Your task to perform on an android device: create a new album in the google photos Image 0: 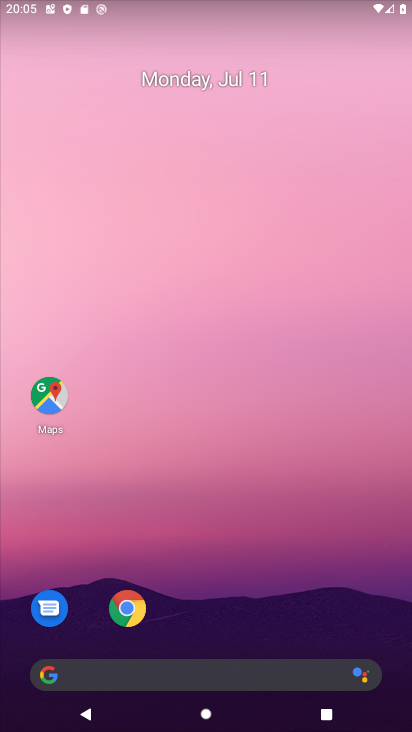
Step 0: click (232, 595)
Your task to perform on an android device: create a new album in the google photos Image 1: 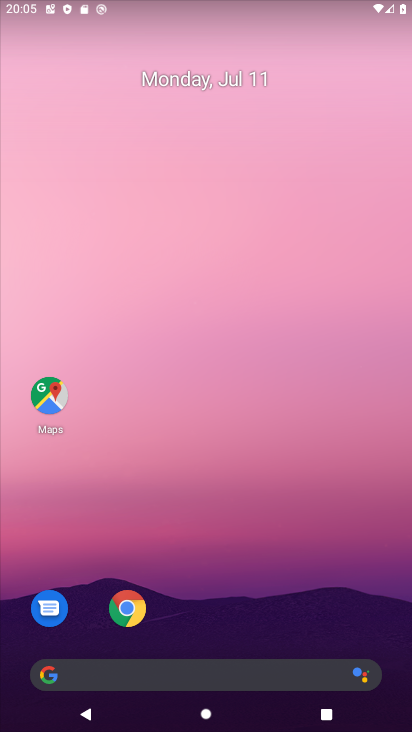
Step 1: drag from (232, 595) to (178, 169)
Your task to perform on an android device: create a new album in the google photos Image 2: 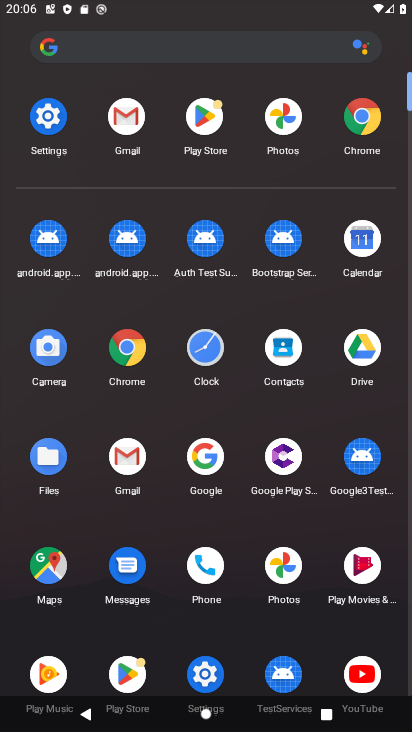
Step 2: click (272, 128)
Your task to perform on an android device: create a new album in the google photos Image 3: 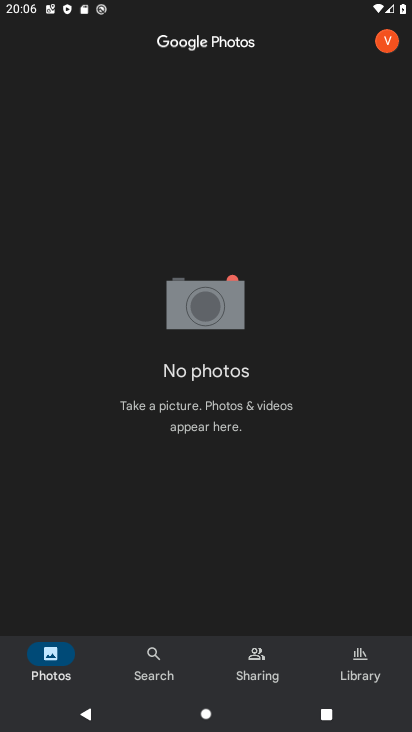
Step 3: click (366, 644)
Your task to perform on an android device: create a new album in the google photos Image 4: 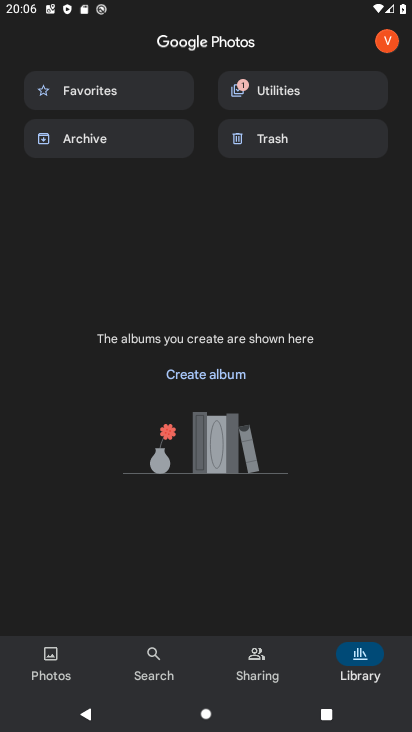
Step 4: click (384, 29)
Your task to perform on an android device: create a new album in the google photos Image 5: 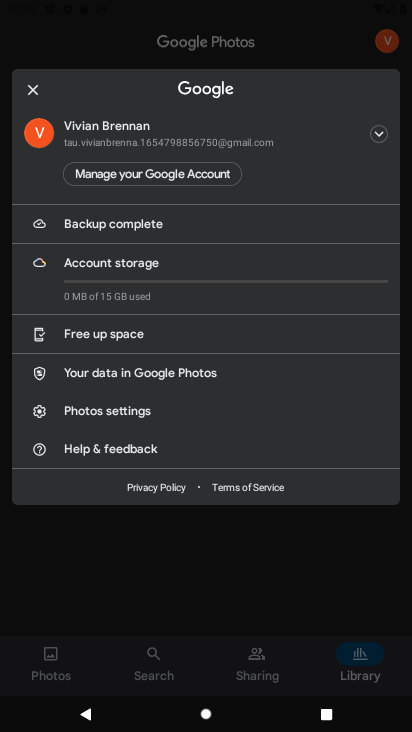
Step 5: click (199, 567)
Your task to perform on an android device: create a new album in the google photos Image 6: 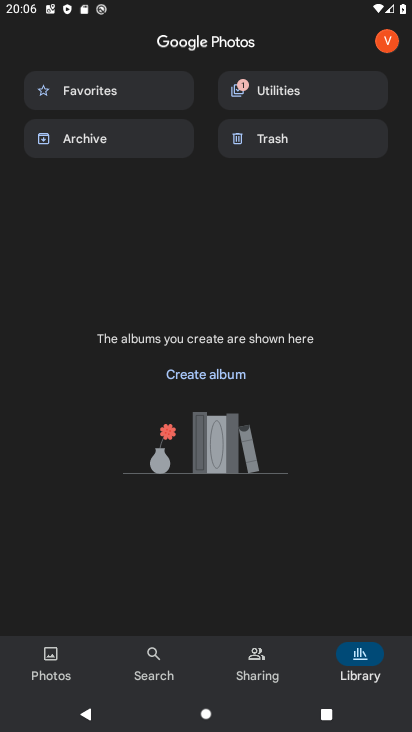
Step 6: task complete